Your task to perform on an android device: turn off javascript in the chrome app Image 0: 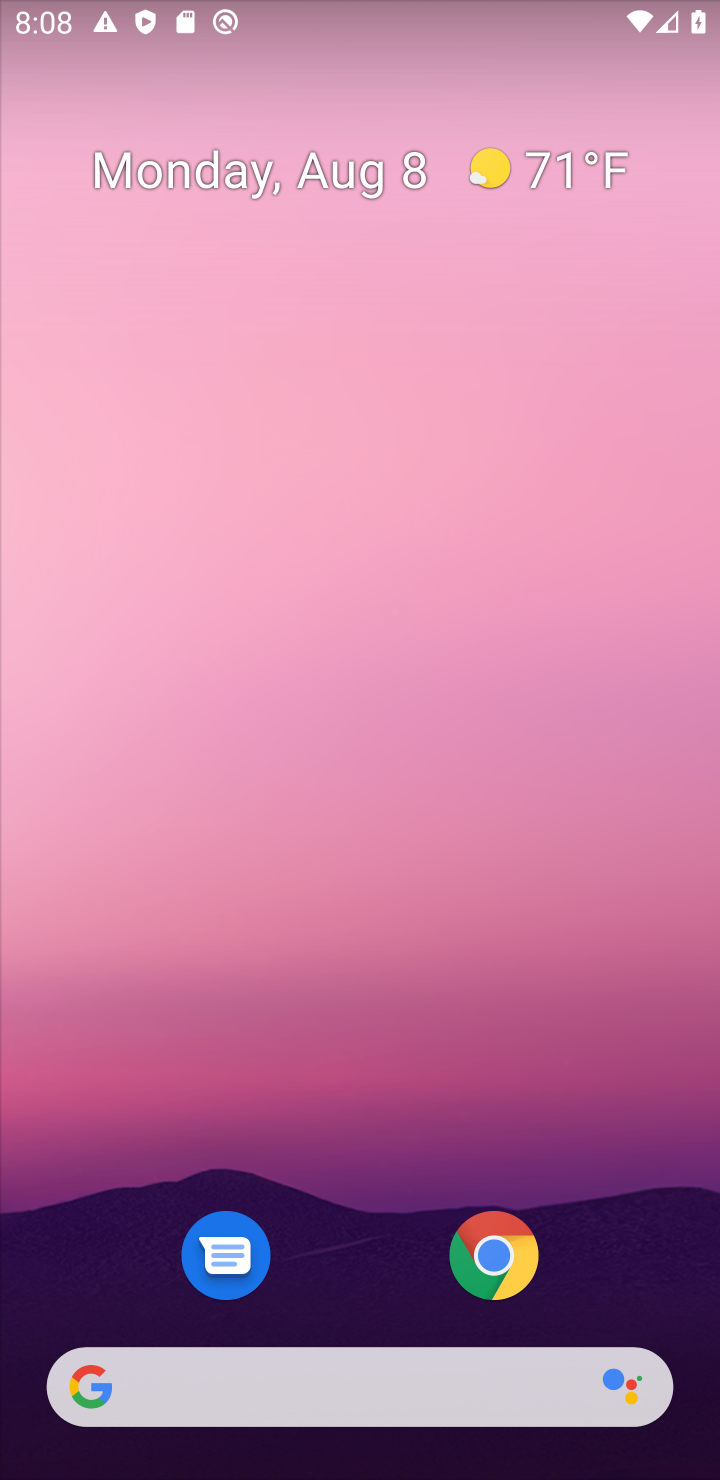
Step 0: click (498, 1267)
Your task to perform on an android device: turn off javascript in the chrome app Image 1: 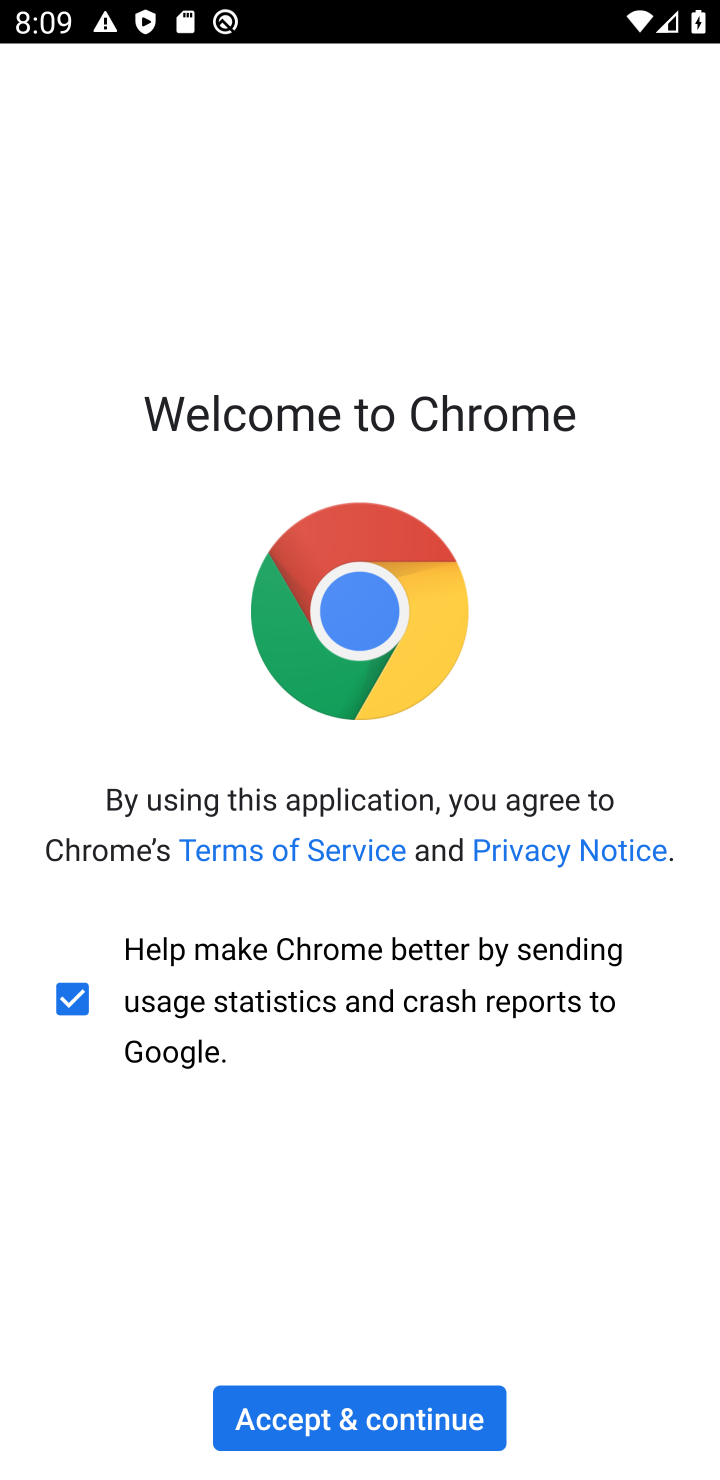
Step 1: click (389, 1411)
Your task to perform on an android device: turn off javascript in the chrome app Image 2: 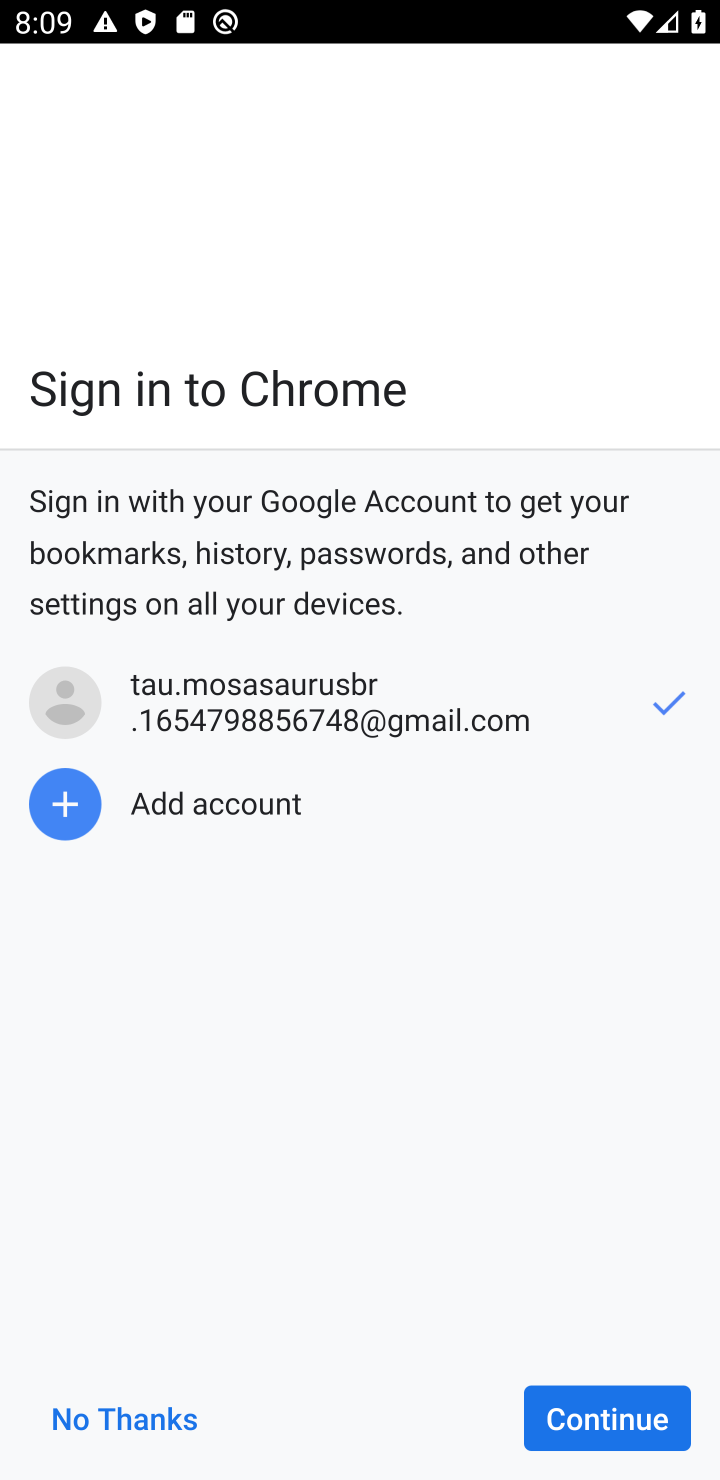
Step 2: click (612, 1419)
Your task to perform on an android device: turn off javascript in the chrome app Image 3: 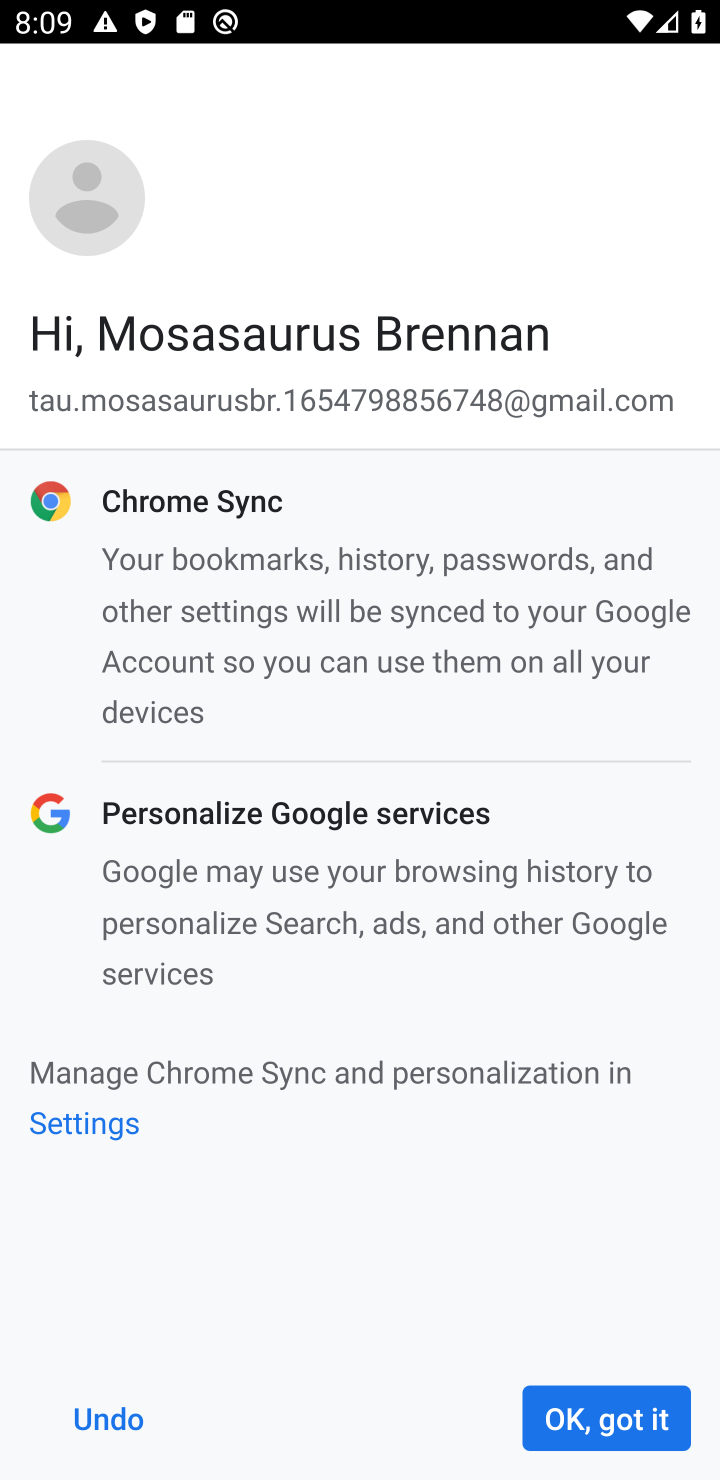
Step 3: click (612, 1419)
Your task to perform on an android device: turn off javascript in the chrome app Image 4: 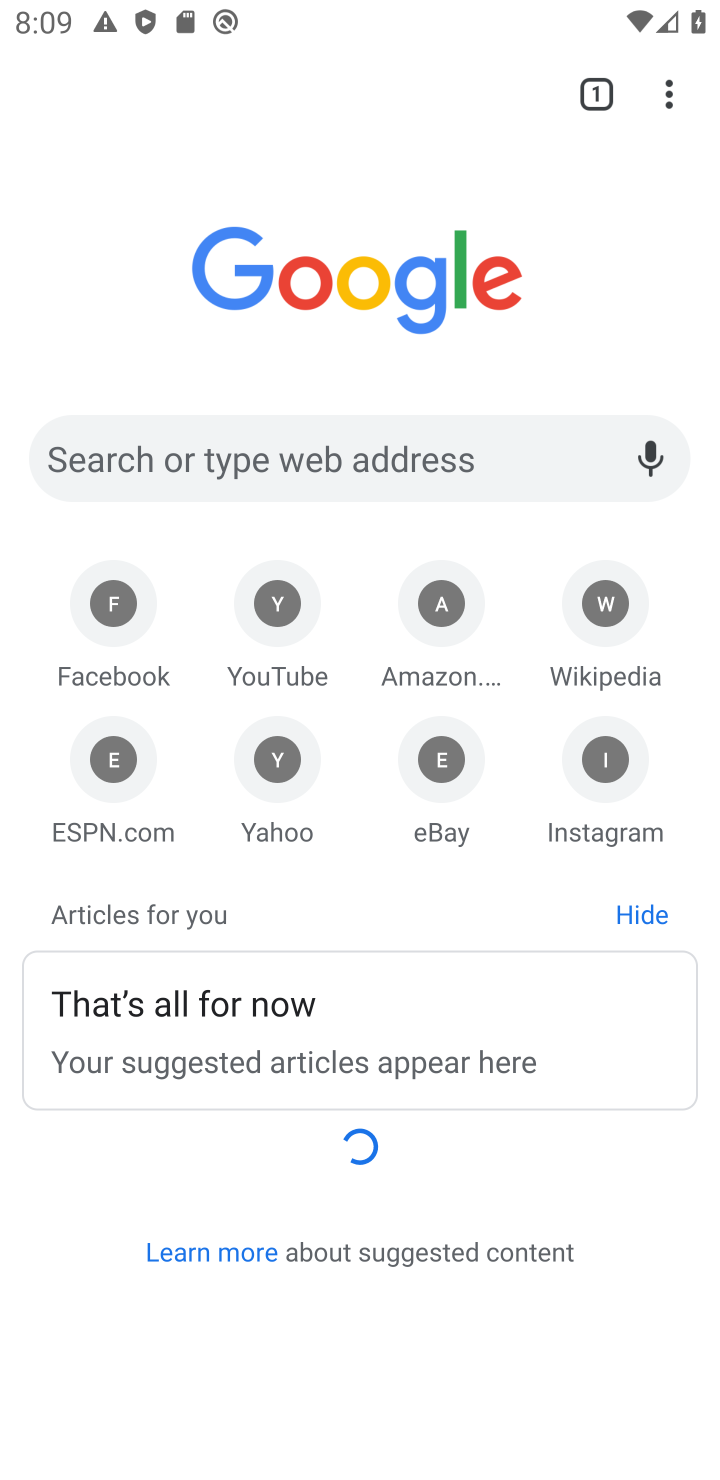
Step 4: click (694, 97)
Your task to perform on an android device: turn off javascript in the chrome app Image 5: 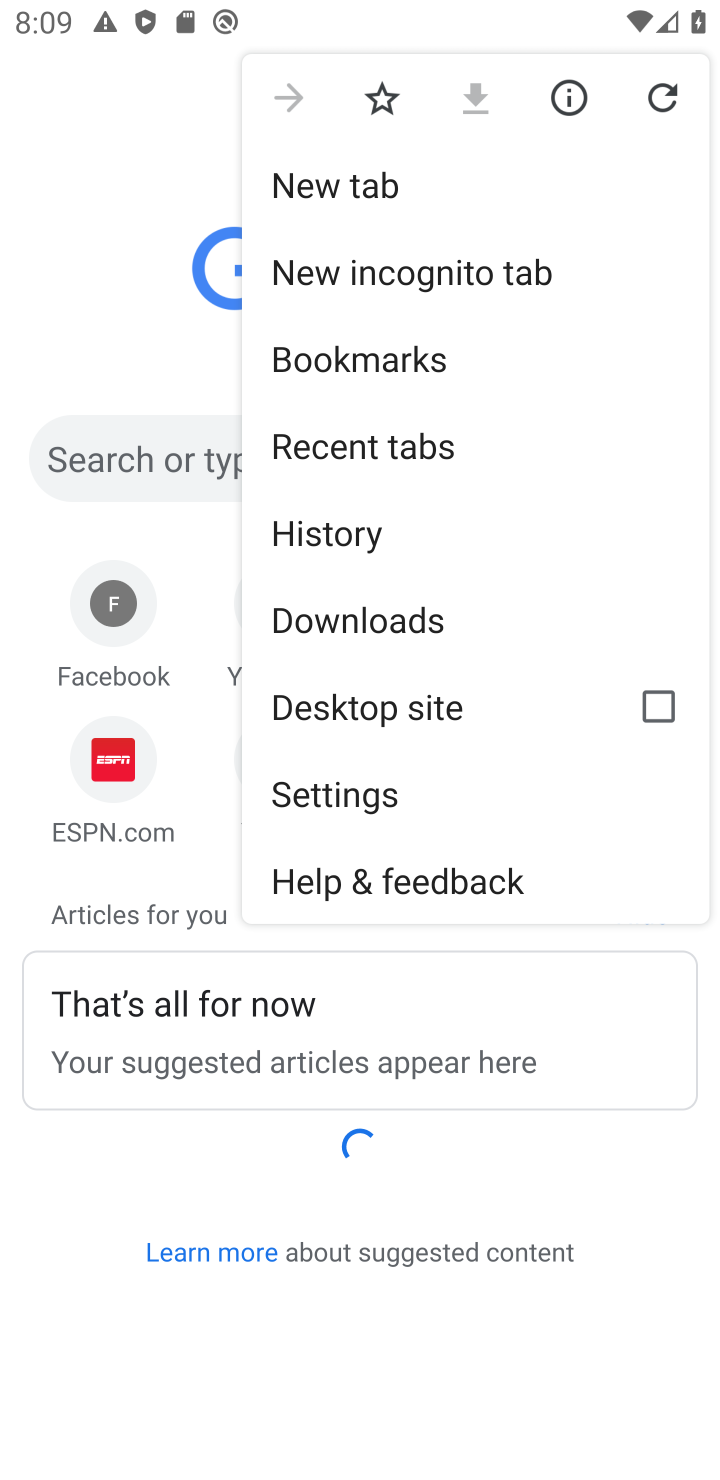
Step 5: click (415, 795)
Your task to perform on an android device: turn off javascript in the chrome app Image 6: 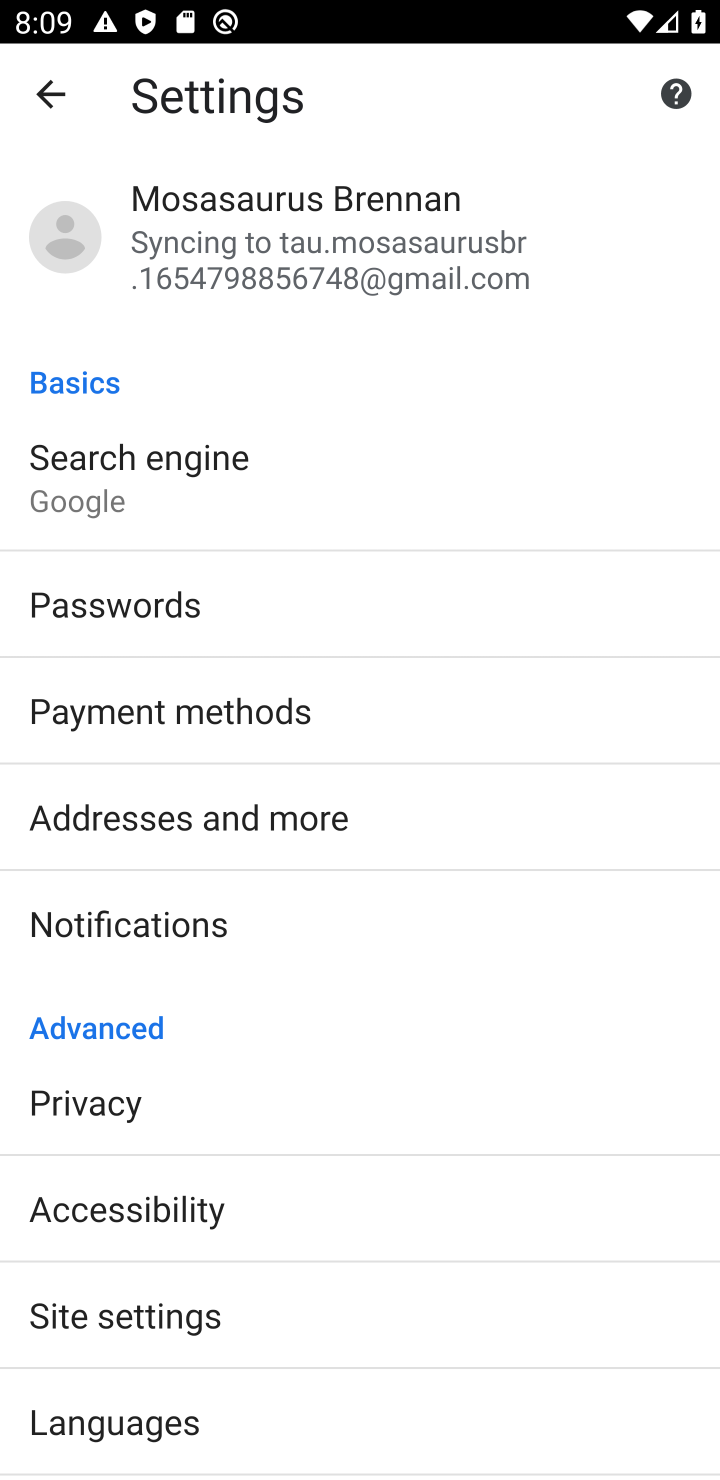
Step 6: click (253, 1325)
Your task to perform on an android device: turn off javascript in the chrome app Image 7: 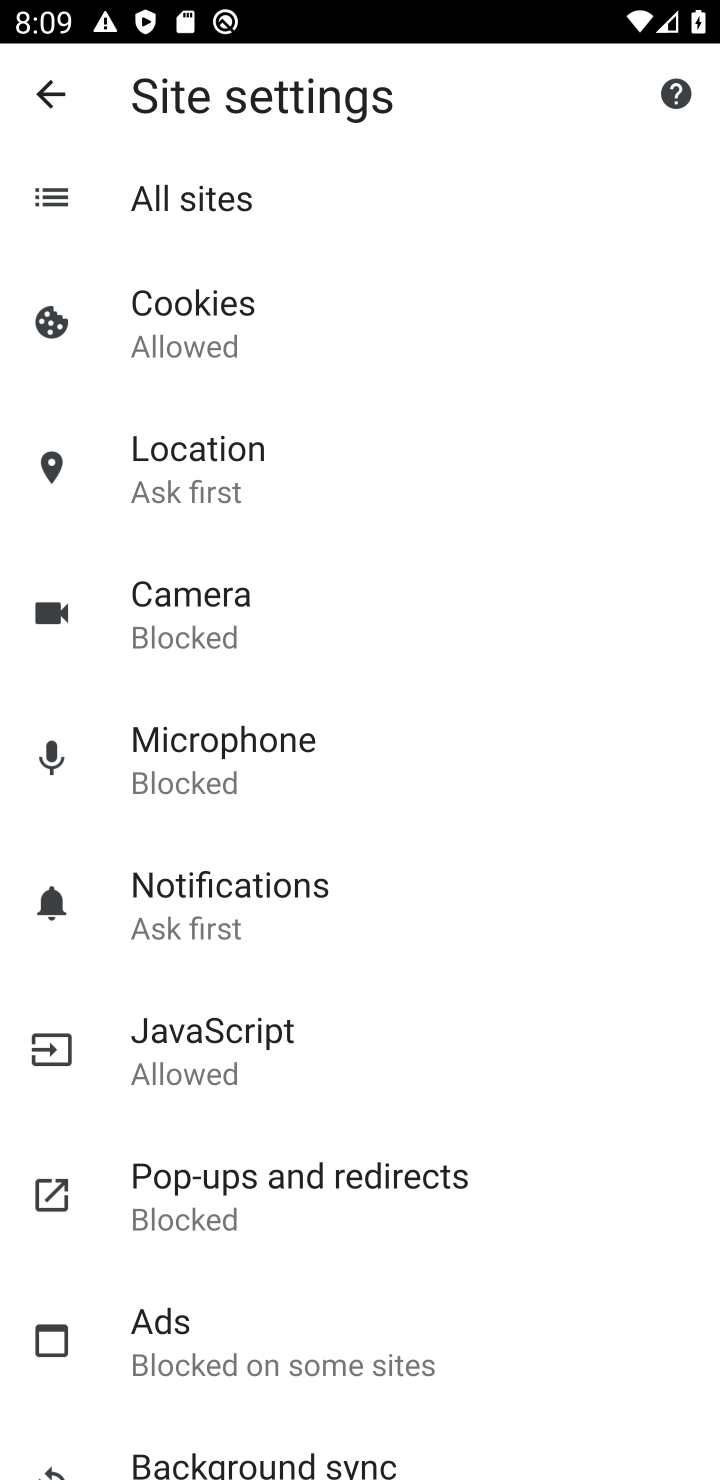
Step 7: click (160, 1062)
Your task to perform on an android device: turn off javascript in the chrome app Image 8: 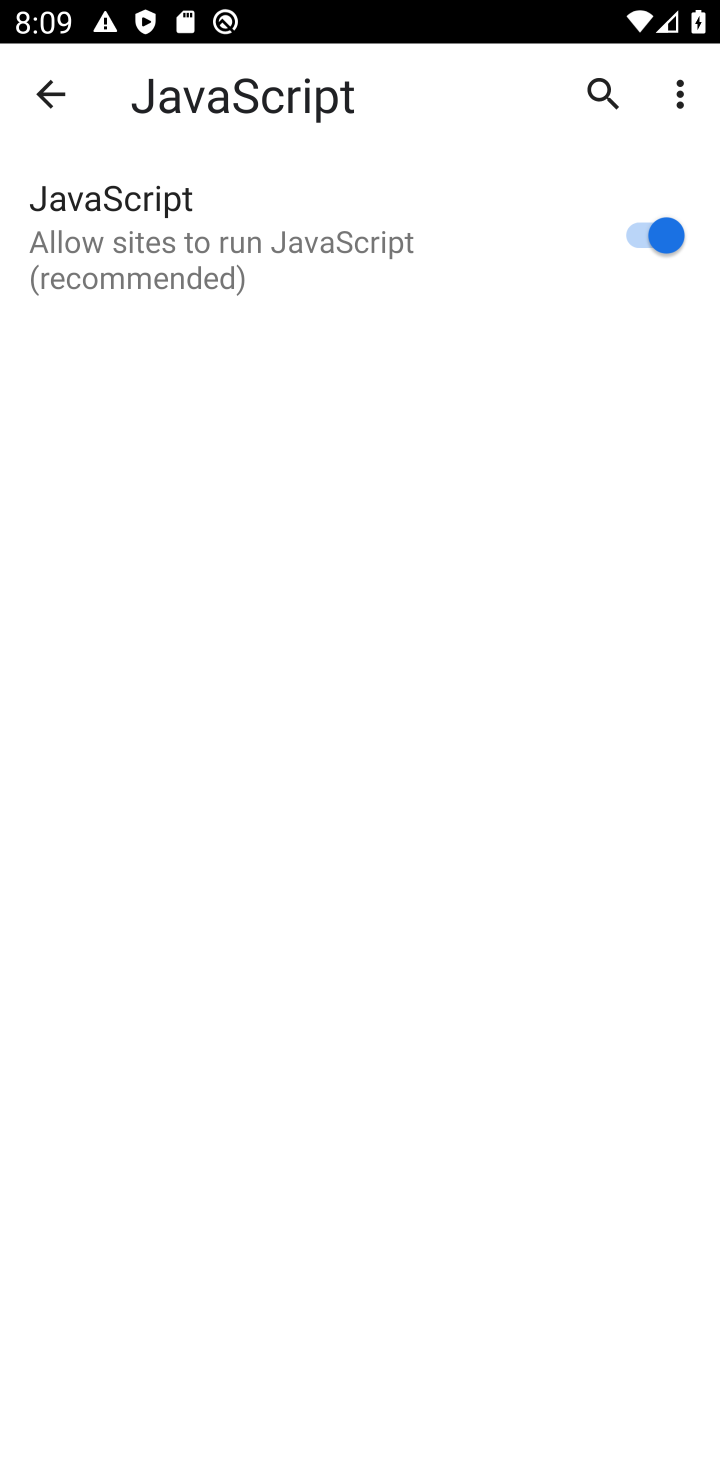
Step 8: click (656, 252)
Your task to perform on an android device: turn off javascript in the chrome app Image 9: 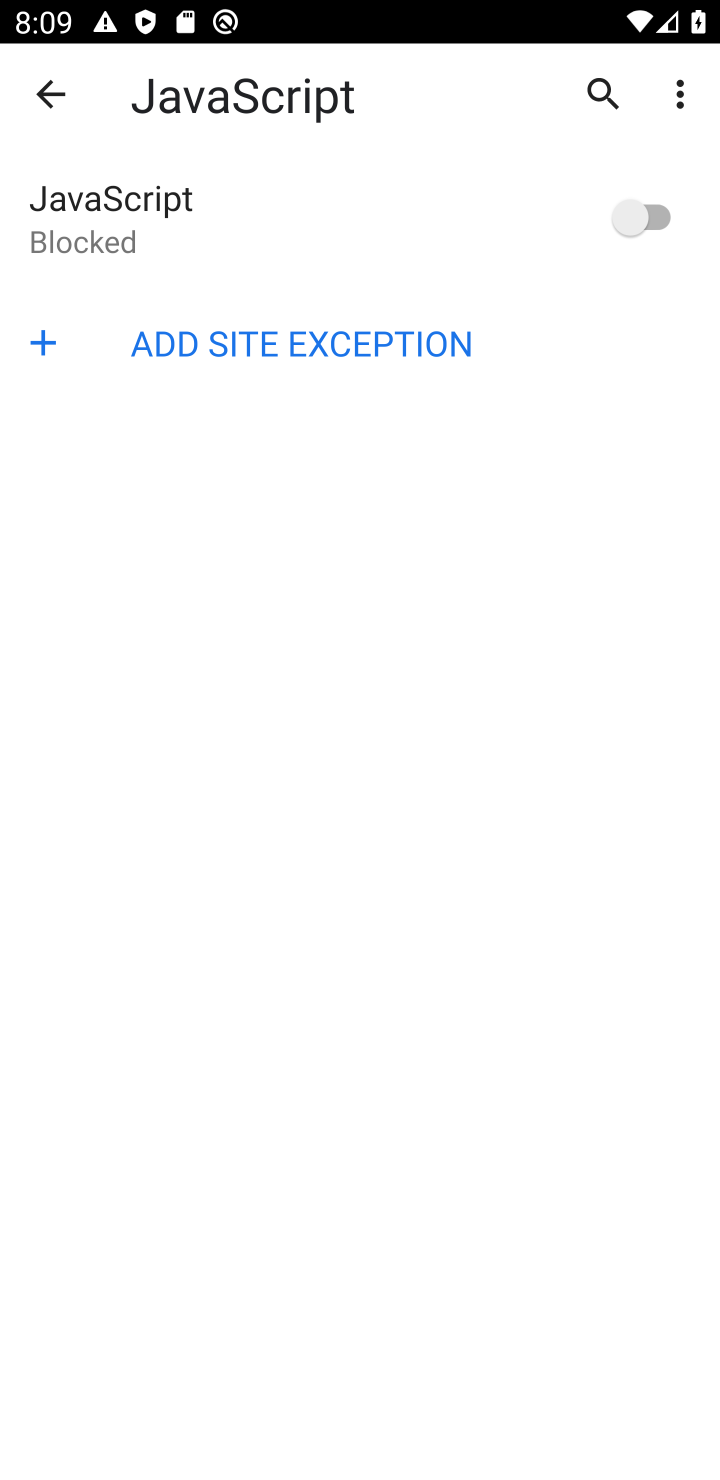
Step 9: task complete